Your task to perform on an android device: What's on my calendar tomorrow? Image 0: 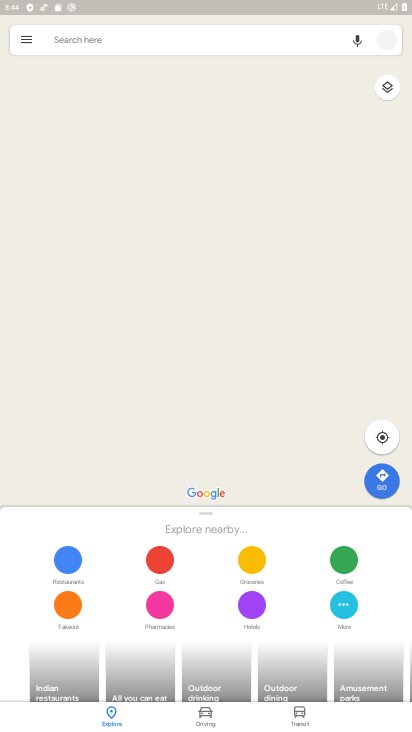
Step 0: press home button
Your task to perform on an android device: What's on my calendar tomorrow? Image 1: 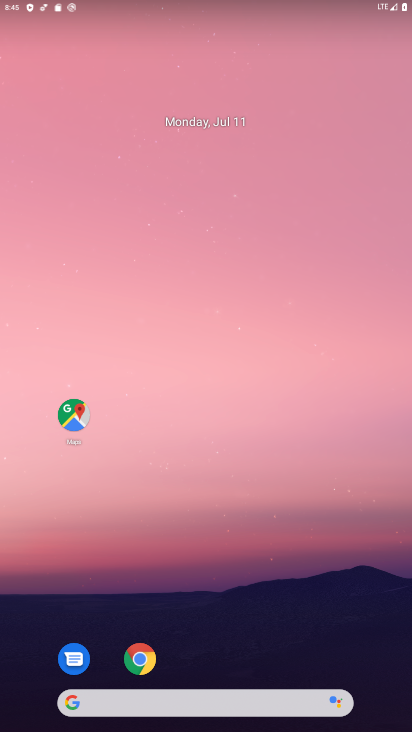
Step 1: drag from (14, 685) to (201, 243)
Your task to perform on an android device: What's on my calendar tomorrow? Image 2: 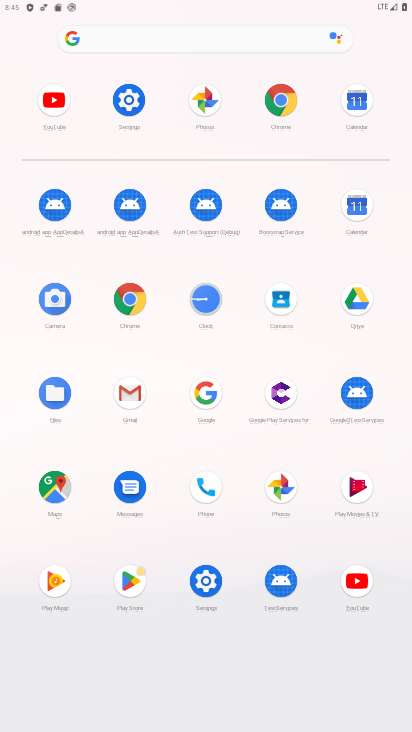
Step 2: click (360, 211)
Your task to perform on an android device: What's on my calendar tomorrow? Image 3: 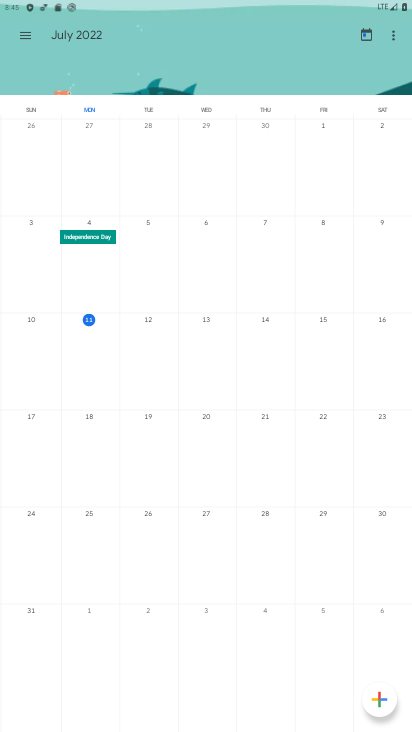
Step 3: click (17, 31)
Your task to perform on an android device: What's on my calendar tomorrow? Image 4: 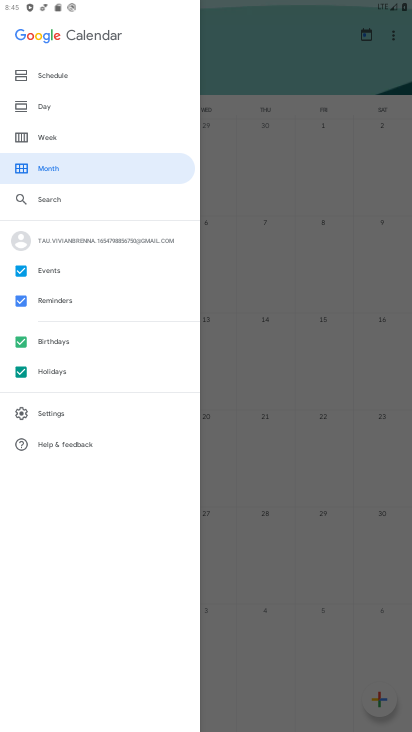
Step 4: task complete